Your task to perform on an android device: turn off location history Image 0: 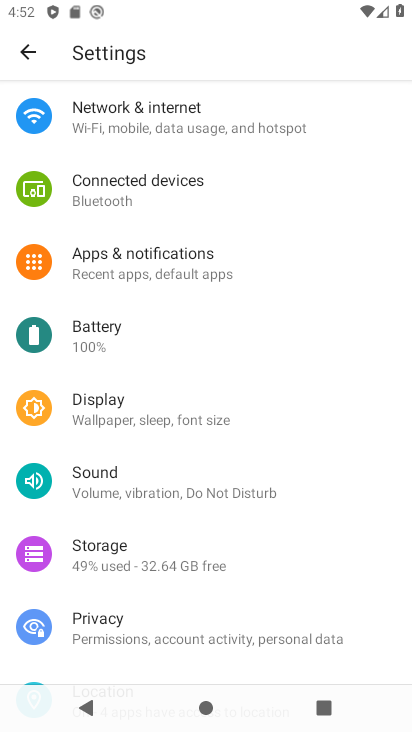
Step 0: press home button
Your task to perform on an android device: turn off location history Image 1: 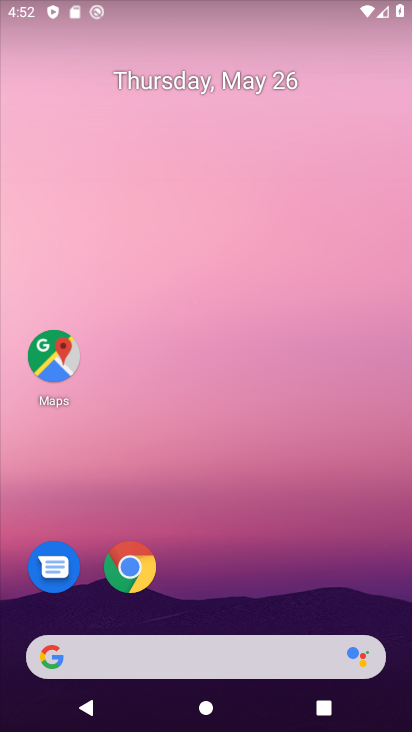
Step 1: drag from (307, 552) to (303, 139)
Your task to perform on an android device: turn off location history Image 2: 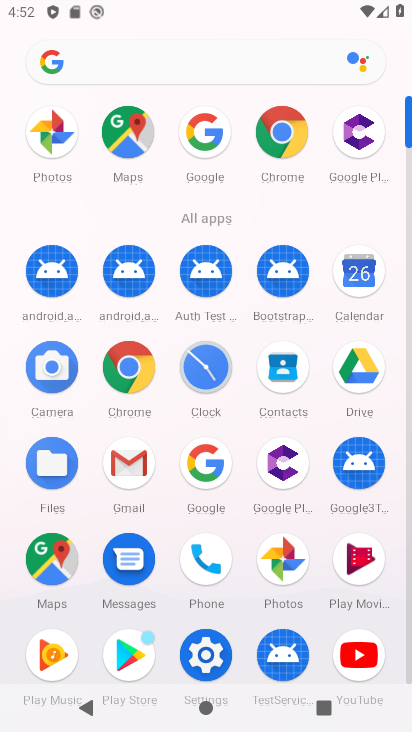
Step 2: click (197, 651)
Your task to perform on an android device: turn off location history Image 3: 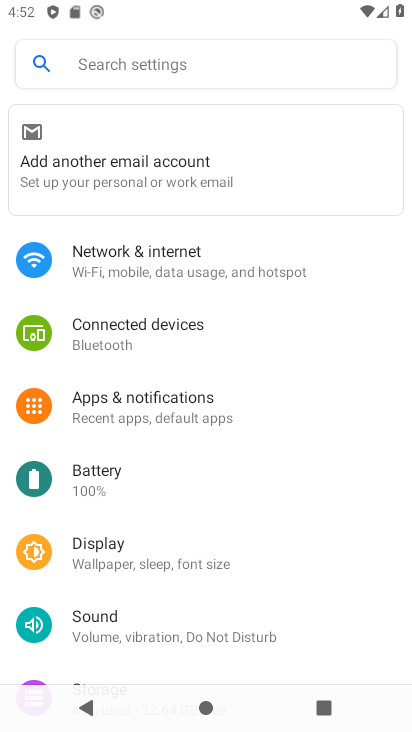
Step 3: drag from (337, 597) to (291, 220)
Your task to perform on an android device: turn off location history Image 4: 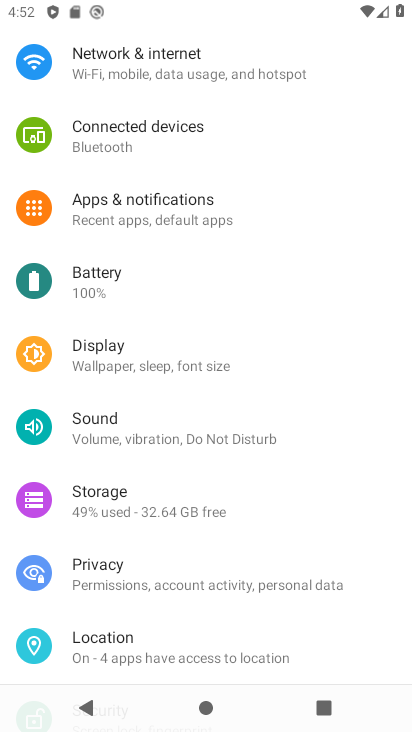
Step 4: click (120, 654)
Your task to perform on an android device: turn off location history Image 5: 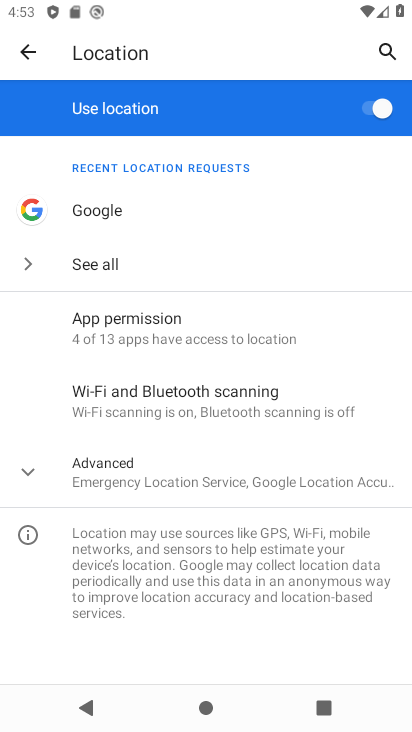
Step 5: click (34, 474)
Your task to perform on an android device: turn off location history Image 6: 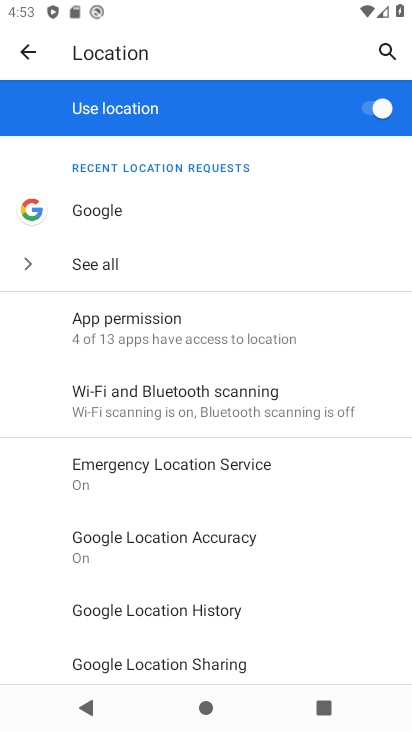
Step 6: click (141, 603)
Your task to perform on an android device: turn off location history Image 7: 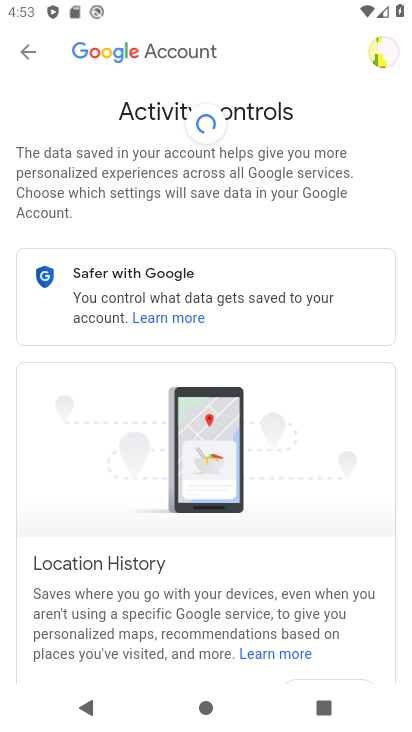
Step 7: drag from (326, 628) to (291, 177)
Your task to perform on an android device: turn off location history Image 8: 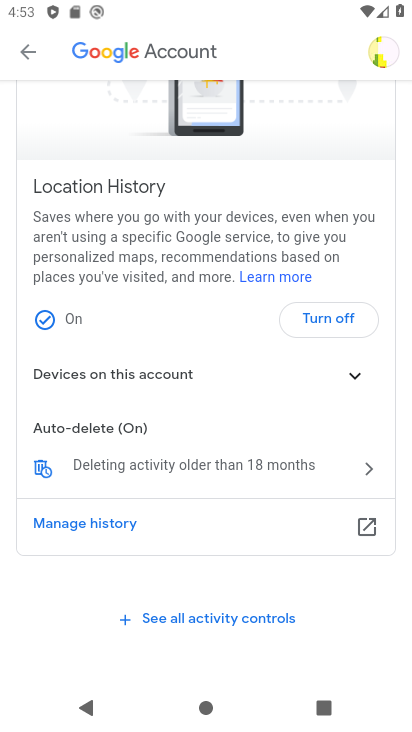
Step 8: click (329, 317)
Your task to perform on an android device: turn off location history Image 9: 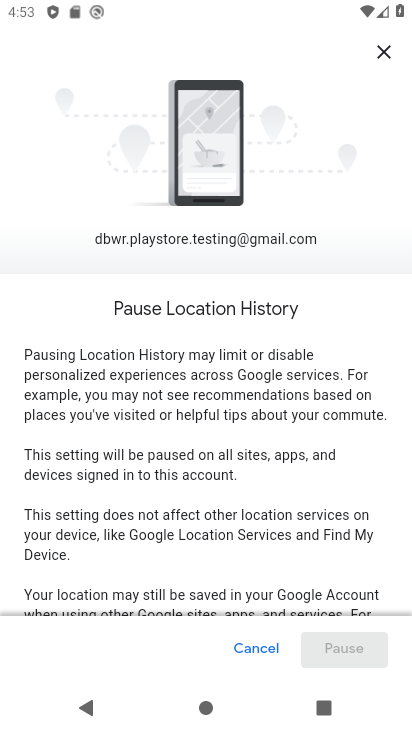
Step 9: task complete